Your task to perform on an android device: Do I have any events today? Image 0: 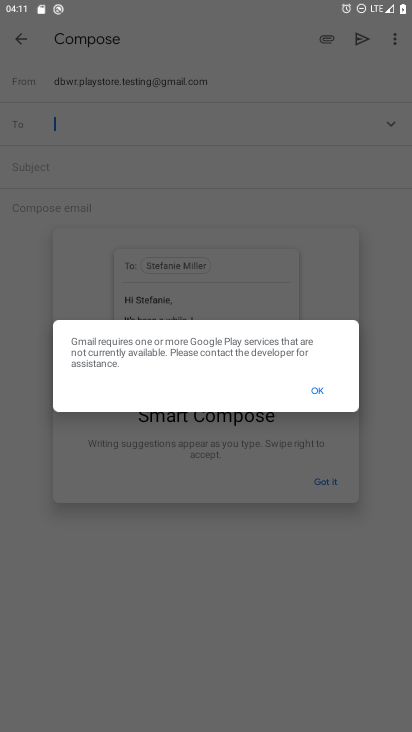
Step 0: press home button
Your task to perform on an android device: Do I have any events today? Image 1: 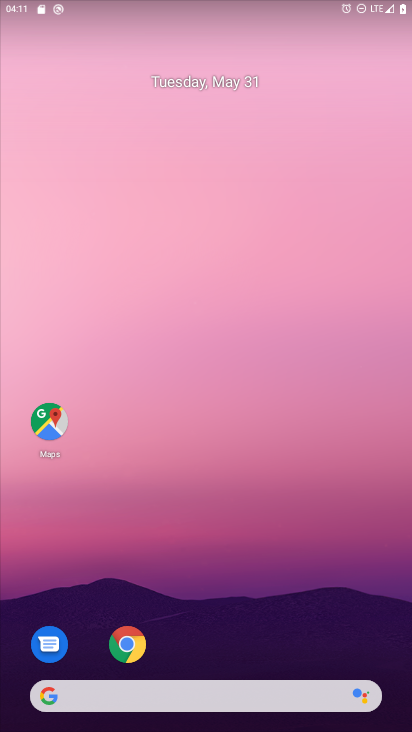
Step 1: drag from (322, 589) to (252, 121)
Your task to perform on an android device: Do I have any events today? Image 2: 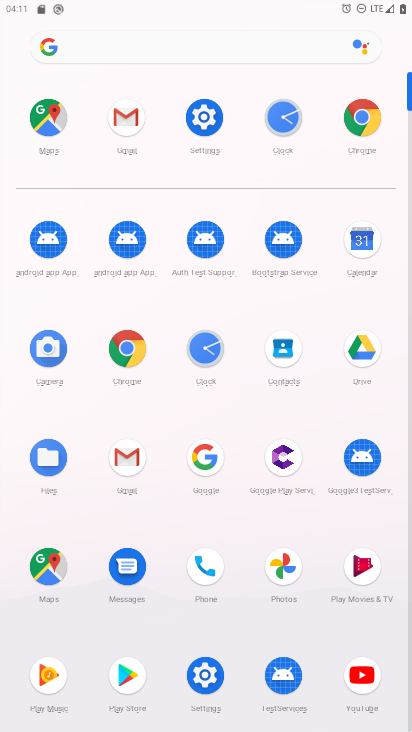
Step 2: click (355, 245)
Your task to perform on an android device: Do I have any events today? Image 3: 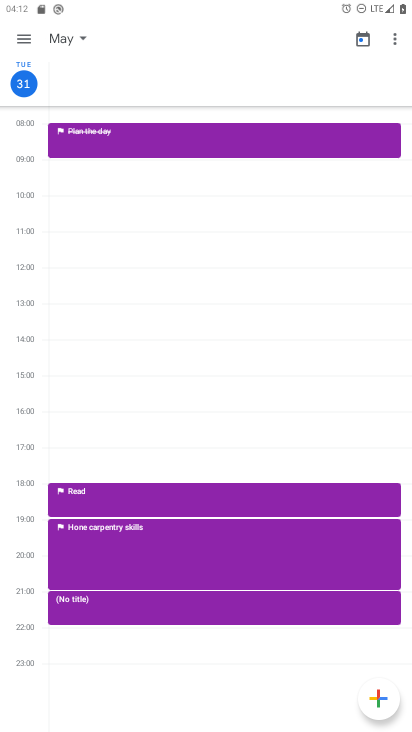
Step 3: click (57, 32)
Your task to perform on an android device: Do I have any events today? Image 4: 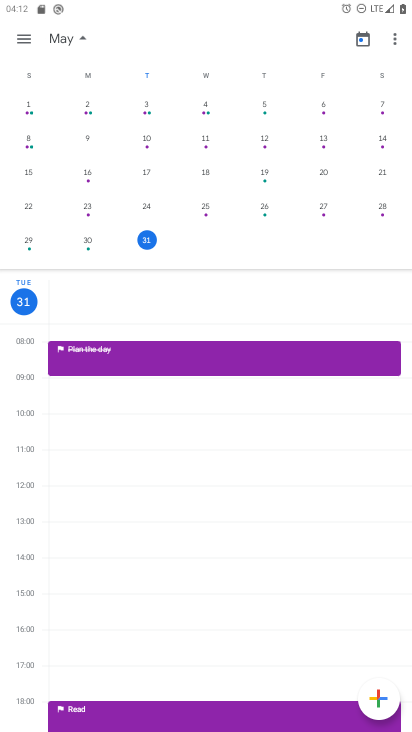
Step 4: drag from (39, 141) to (105, 169)
Your task to perform on an android device: Do I have any events today? Image 5: 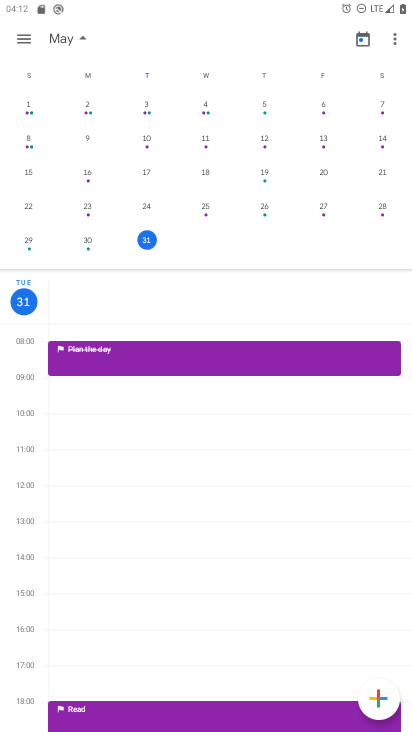
Step 5: click (143, 239)
Your task to perform on an android device: Do I have any events today? Image 6: 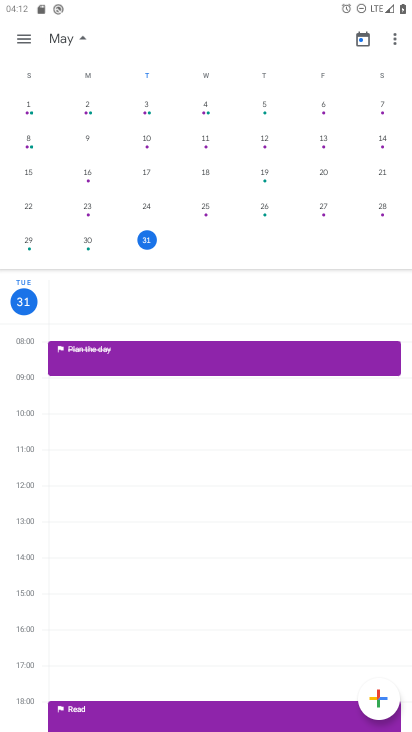
Step 6: task complete